Your task to perform on an android device: Go to location settings Image 0: 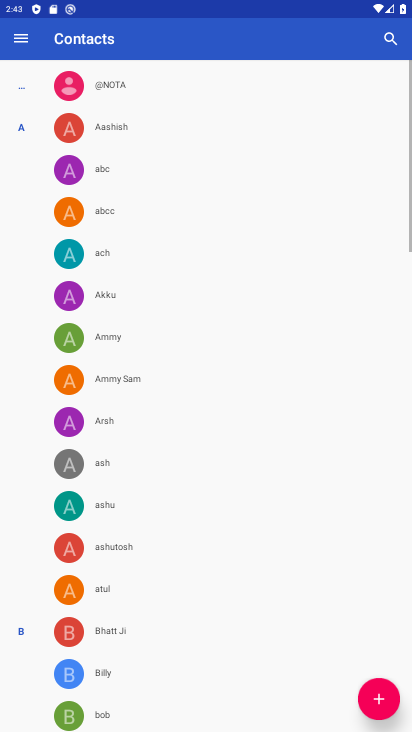
Step 0: press back button
Your task to perform on an android device: Go to location settings Image 1: 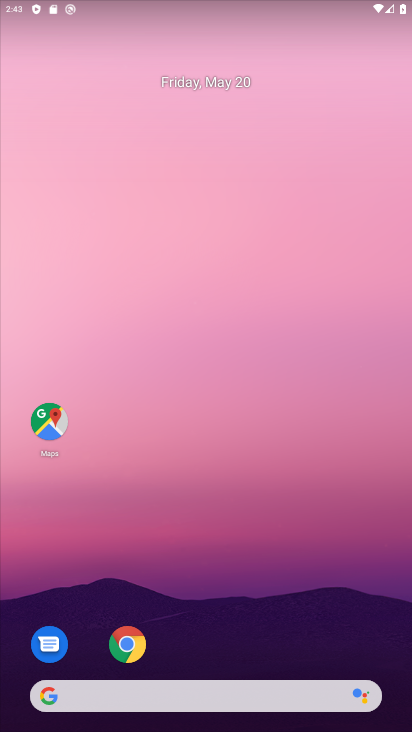
Step 1: drag from (259, 605) to (187, 46)
Your task to perform on an android device: Go to location settings Image 2: 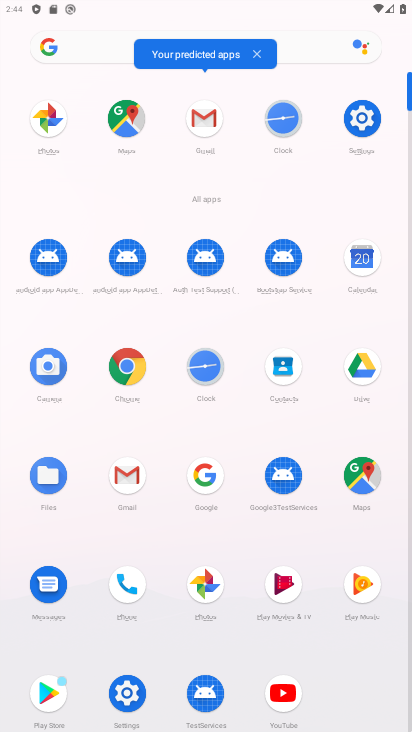
Step 2: click (365, 118)
Your task to perform on an android device: Go to location settings Image 3: 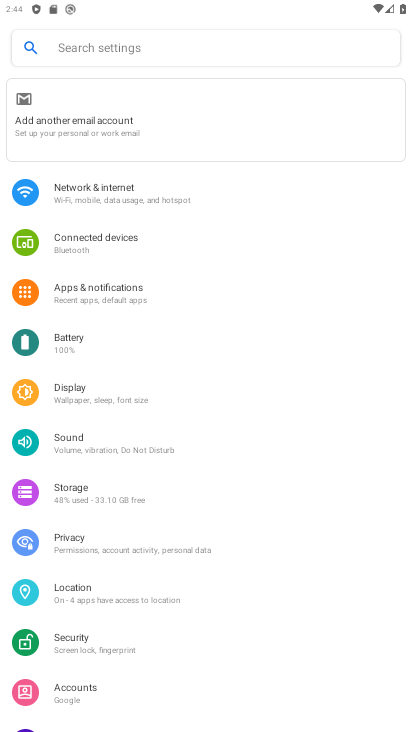
Step 3: click (83, 595)
Your task to perform on an android device: Go to location settings Image 4: 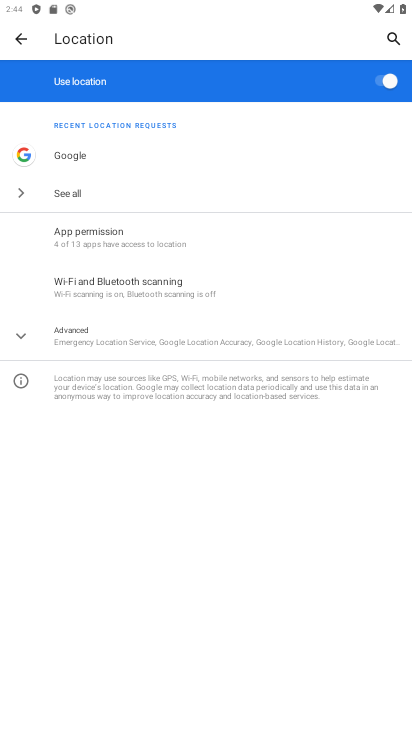
Step 4: task complete